Your task to perform on an android device: Open Google Chrome and click the shortcut for Amazon.com Image 0: 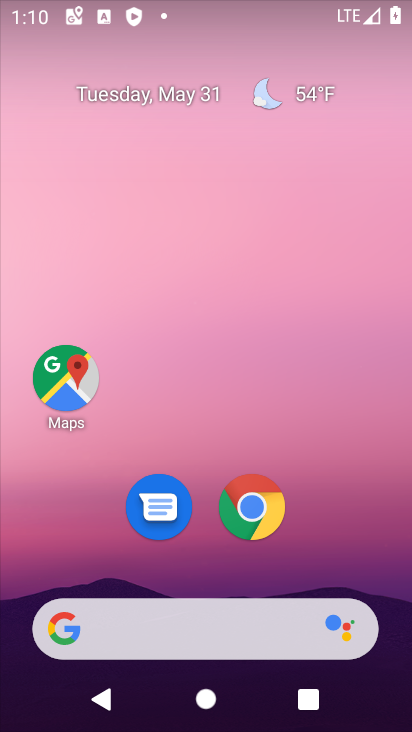
Step 0: drag from (384, 655) to (315, 37)
Your task to perform on an android device: Open Google Chrome and click the shortcut for Amazon.com Image 1: 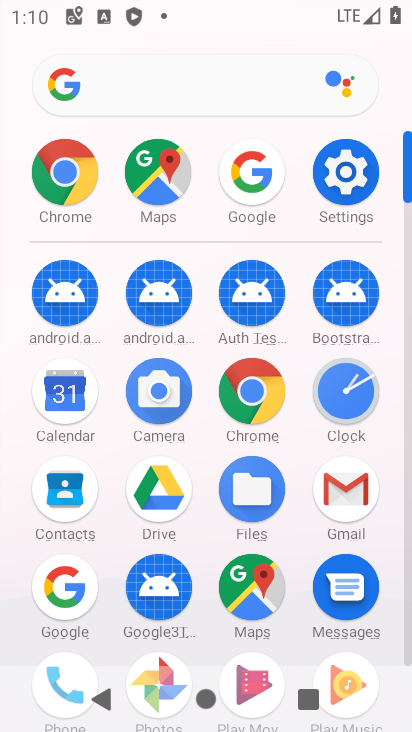
Step 1: click (254, 389)
Your task to perform on an android device: Open Google Chrome and click the shortcut for Amazon.com Image 2: 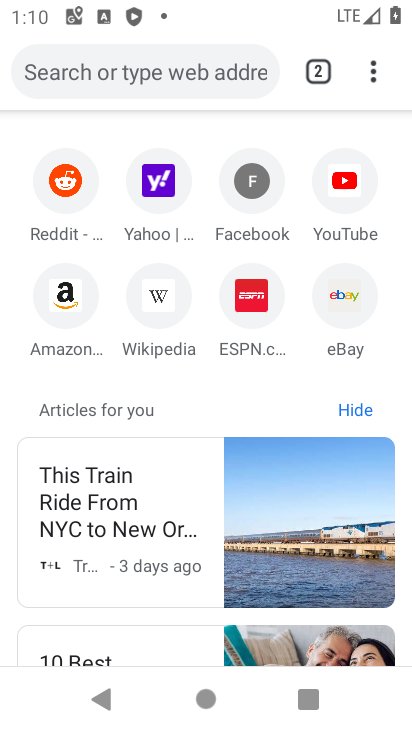
Step 2: click (68, 304)
Your task to perform on an android device: Open Google Chrome and click the shortcut for Amazon.com Image 3: 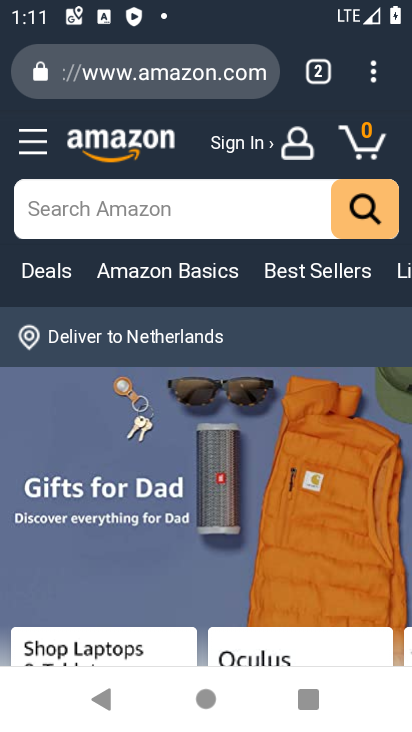
Step 3: task complete